Your task to perform on an android device: Open Youtube and go to the subscriptions tab Image 0: 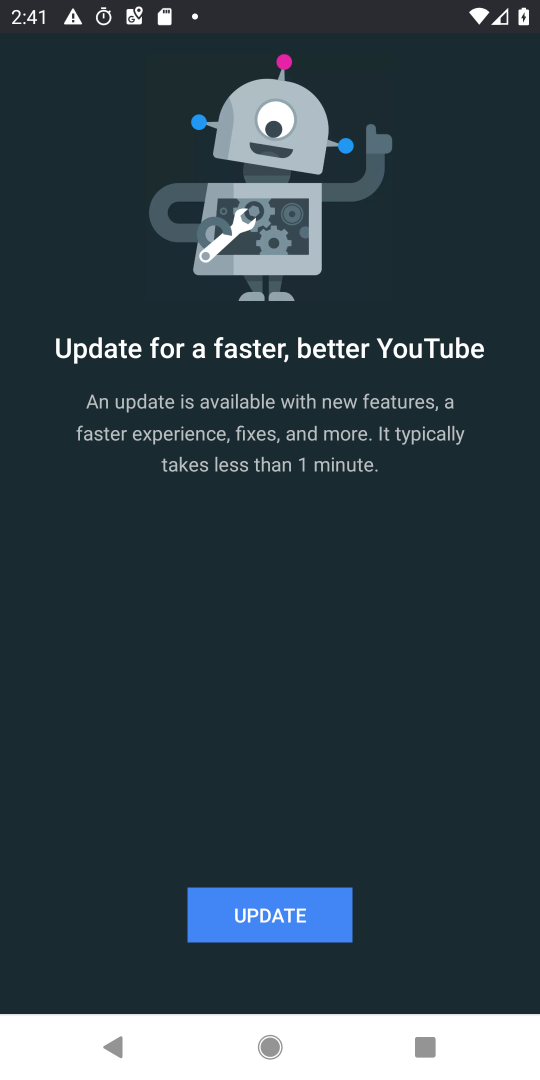
Step 0: press home button
Your task to perform on an android device: Open Youtube and go to the subscriptions tab Image 1: 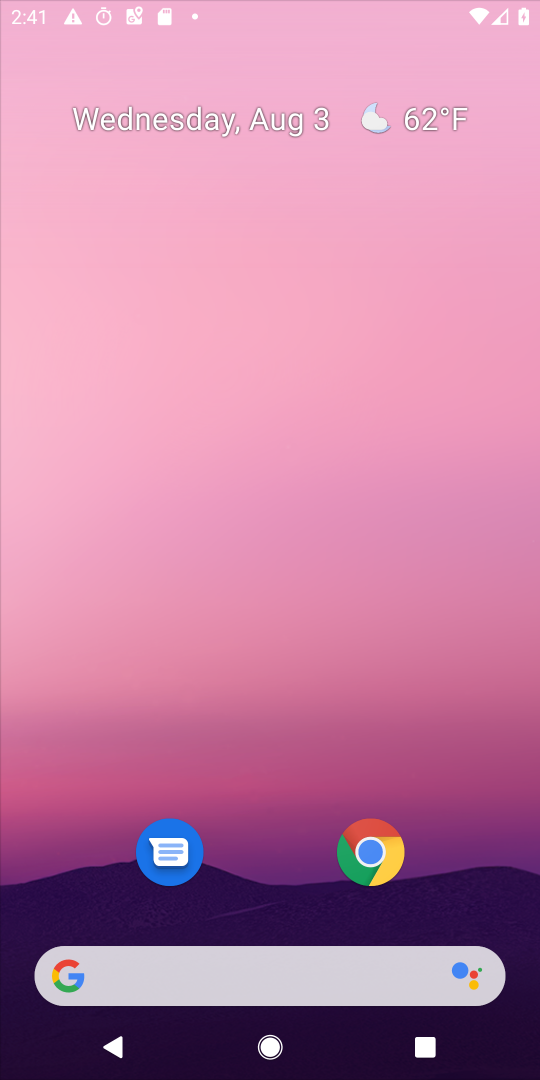
Step 1: drag from (508, 914) to (200, 57)
Your task to perform on an android device: Open Youtube and go to the subscriptions tab Image 2: 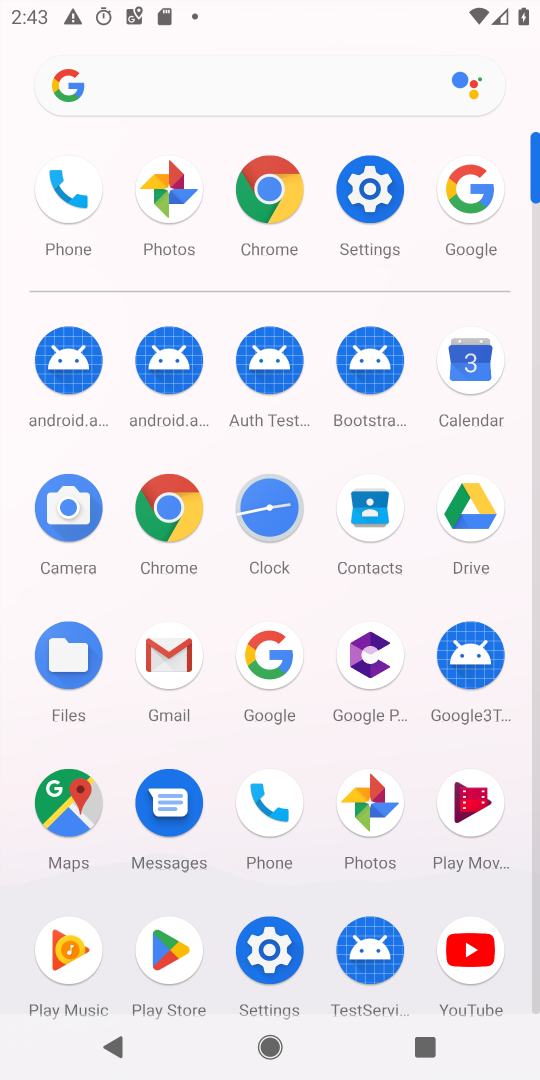
Step 2: click (461, 975)
Your task to perform on an android device: Open Youtube and go to the subscriptions tab Image 3: 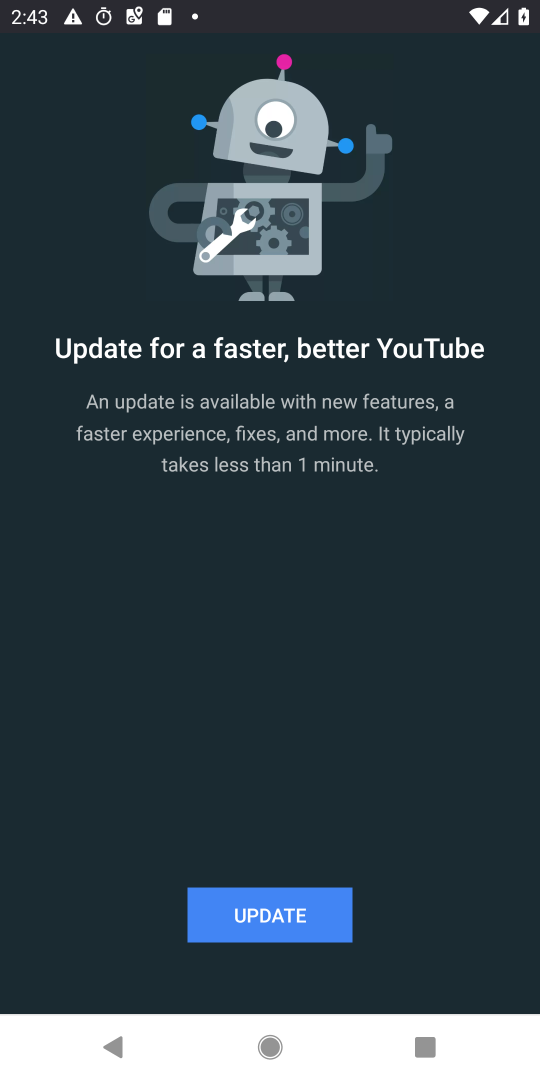
Step 3: task complete